Your task to perform on an android device: open chrome privacy settings Image 0: 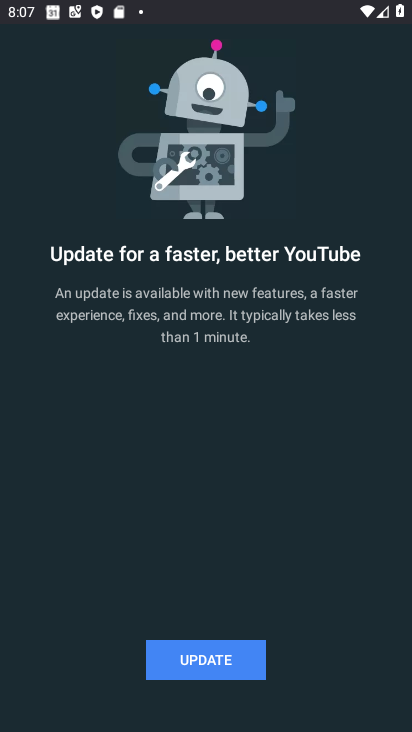
Step 0: press home button
Your task to perform on an android device: open chrome privacy settings Image 1: 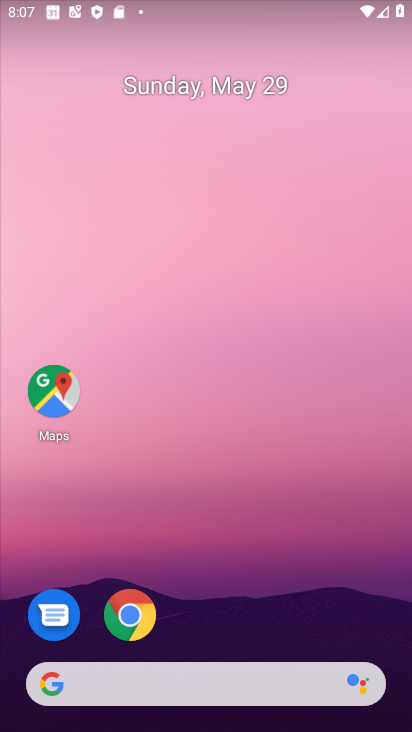
Step 1: click (125, 623)
Your task to perform on an android device: open chrome privacy settings Image 2: 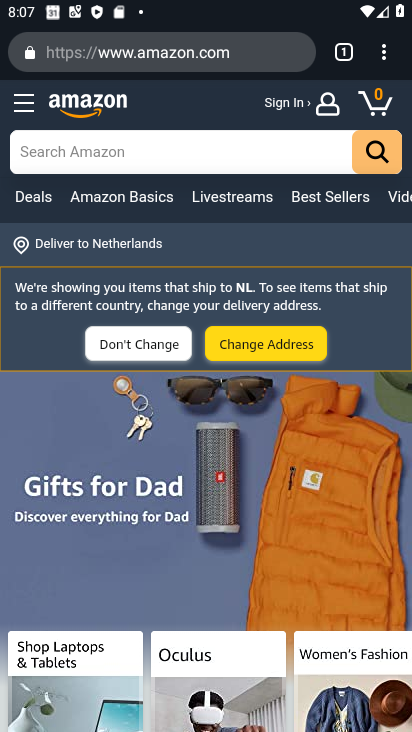
Step 2: click (385, 50)
Your task to perform on an android device: open chrome privacy settings Image 3: 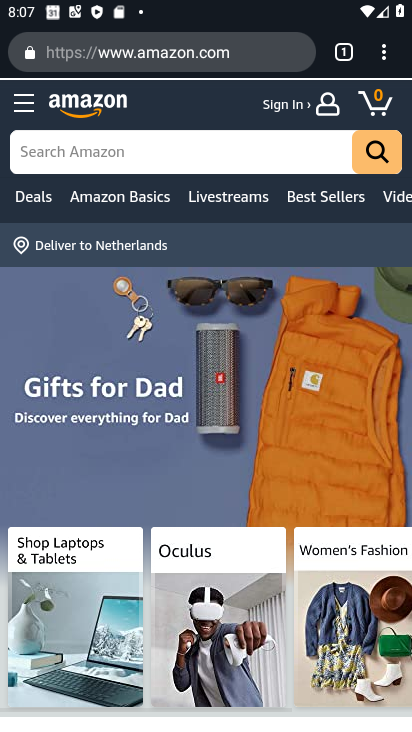
Step 3: drag from (388, 55) to (209, 585)
Your task to perform on an android device: open chrome privacy settings Image 4: 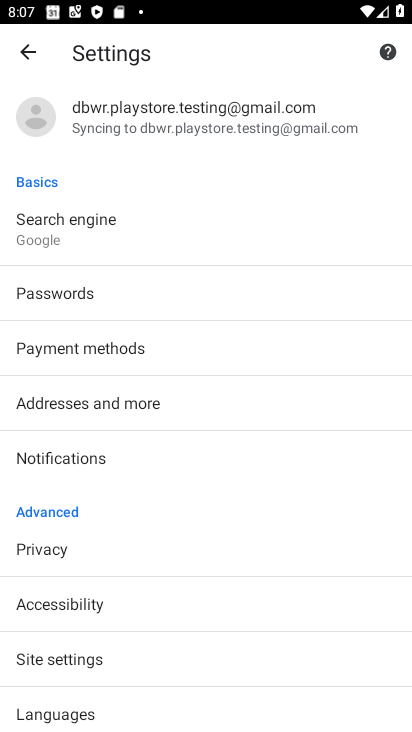
Step 4: click (58, 540)
Your task to perform on an android device: open chrome privacy settings Image 5: 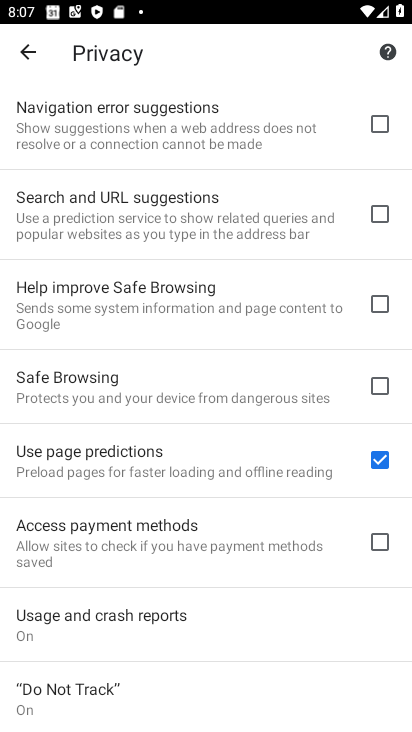
Step 5: task complete